Your task to perform on an android device: When is my next appointment? Image 0: 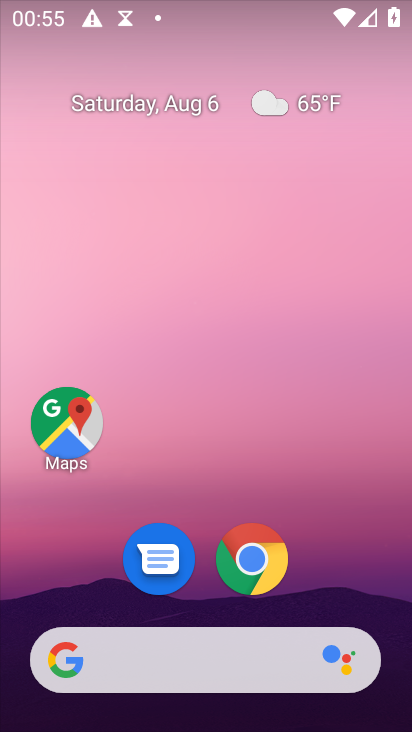
Step 0: drag from (377, 619) to (338, 111)
Your task to perform on an android device: When is my next appointment? Image 1: 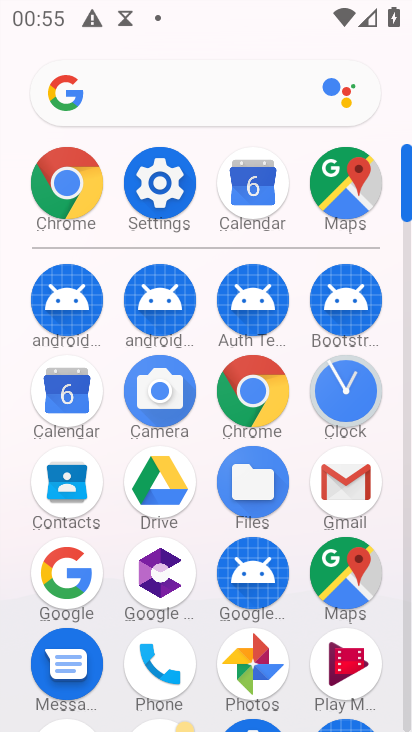
Step 1: click (41, 398)
Your task to perform on an android device: When is my next appointment? Image 2: 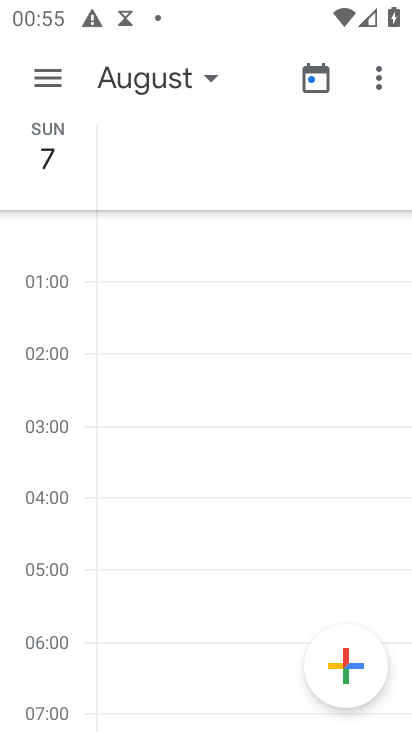
Step 2: click (43, 82)
Your task to perform on an android device: When is my next appointment? Image 3: 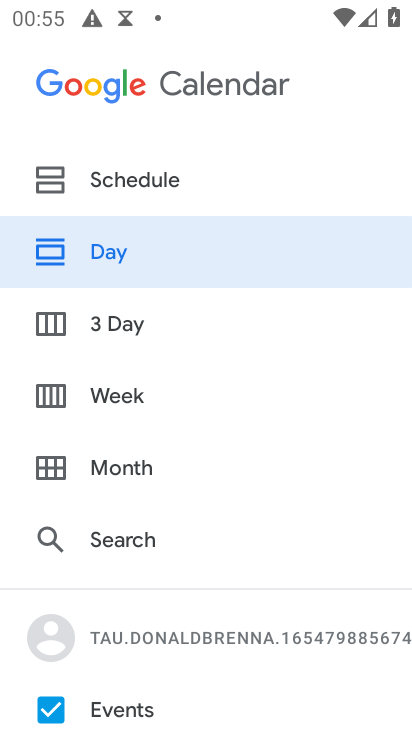
Step 3: click (176, 185)
Your task to perform on an android device: When is my next appointment? Image 4: 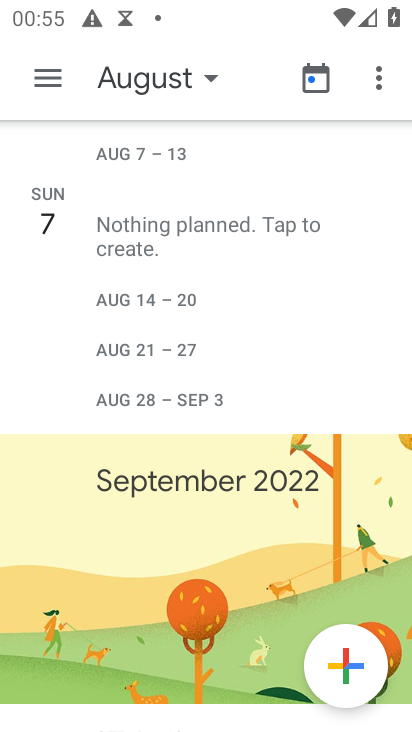
Step 4: task complete